Your task to perform on an android device: Open Google Maps Image 0: 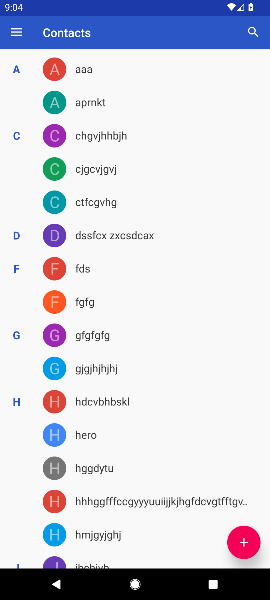
Step 0: press home button
Your task to perform on an android device: Open Google Maps Image 1: 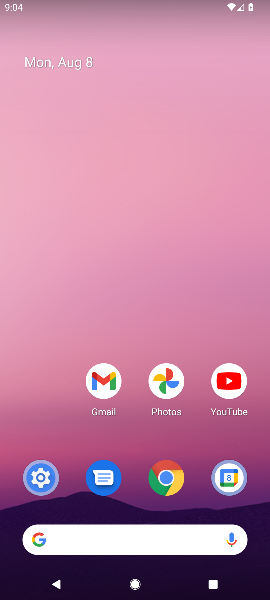
Step 1: drag from (105, 541) to (114, 91)
Your task to perform on an android device: Open Google Maps Image 2: 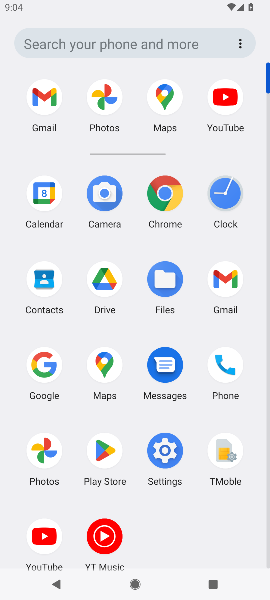
Step 2: click (164, 92)
Your task to perform on an android device: Open Google Maps Image 3: 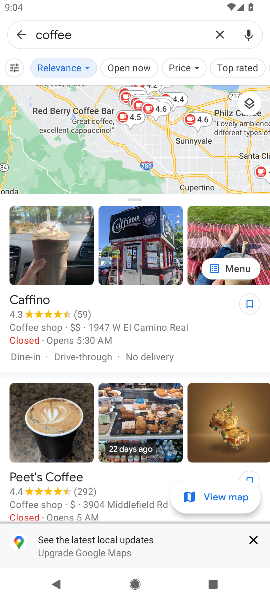
Step 3: click (23, 35)
Your task to perform on an android device: Open Google Maps Image 4: 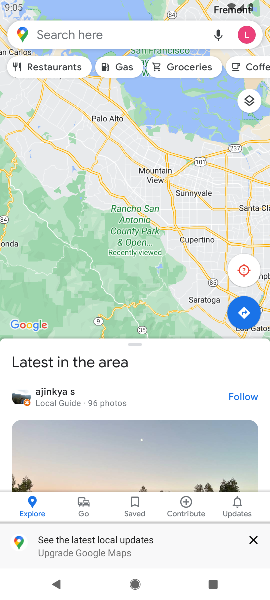
Step 4: task complete